Your task to perform on an android device: empty trash in the gmail app Image 0: 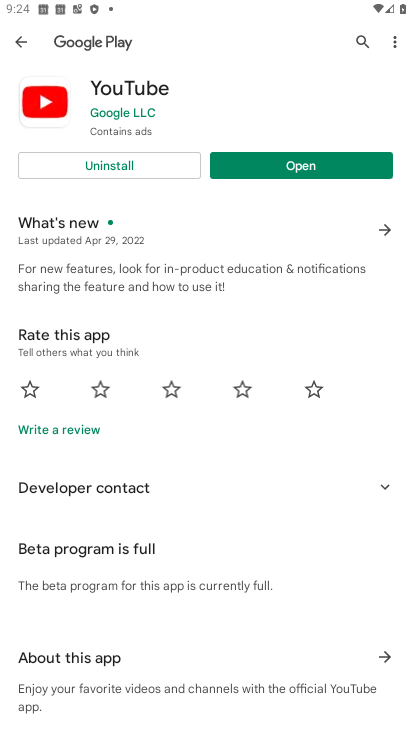
Step 0: drag from (207, 680) to (192, 407)
Your task to perform on an android device: empty trash in the gmail app Image 1: 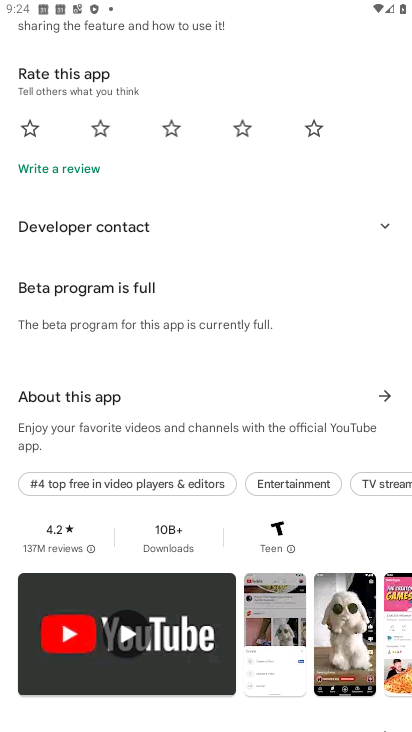
Step 1: press home button
Your task to perform on an android device: empty trash in the gmail app Image 2: 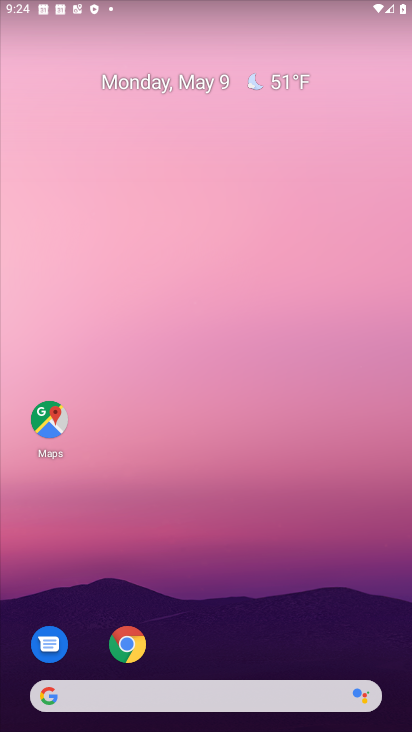
Step 2: drag from (191, 668) to (136, 56)
Your task to perform on an android device: empty trash in the gmail app Image 3: 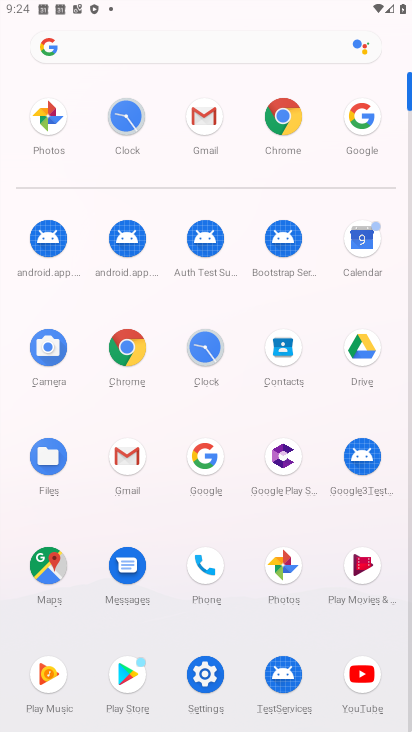
Step 3: click (137, 454)
Your task to perform on an android device: empty trash in the gmail app Image 4: 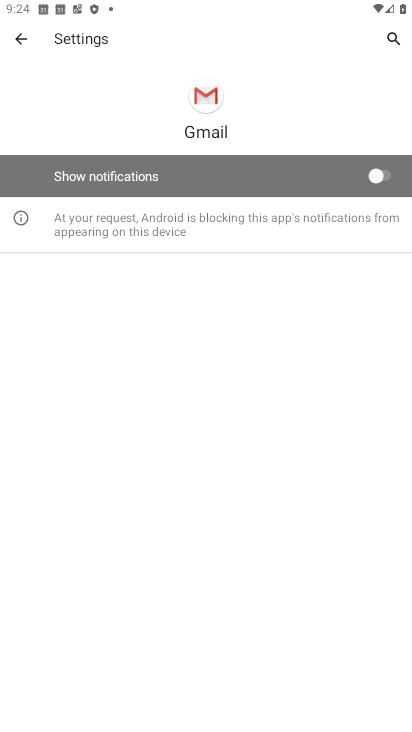
Step 4: click (20, 41)
Your task to perform on an android device: empty trash in the gmail app Image 5: 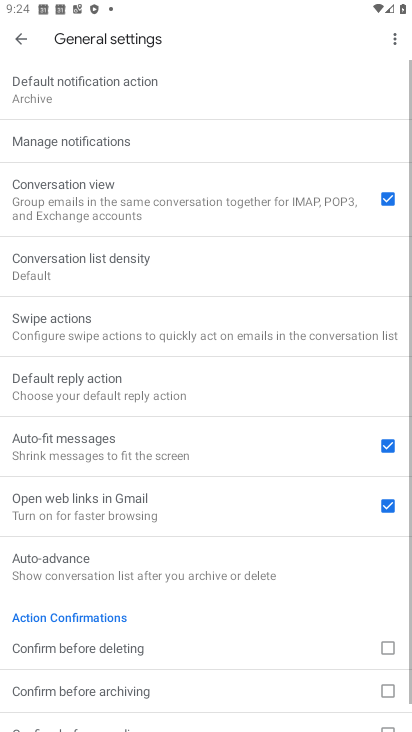
Step 5: click (20, 41)
Your task to perform on an android device: empty trash in the gmail app Image 6: 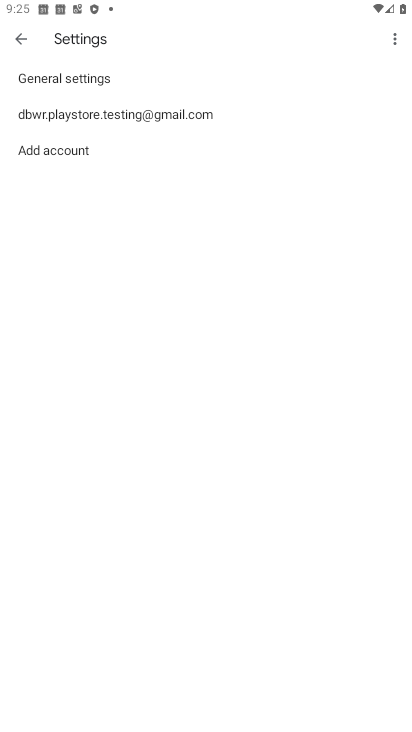
Step 6: click (21, 41)
Your task to perform on an android device: empty trash in the gmail app Image 7: 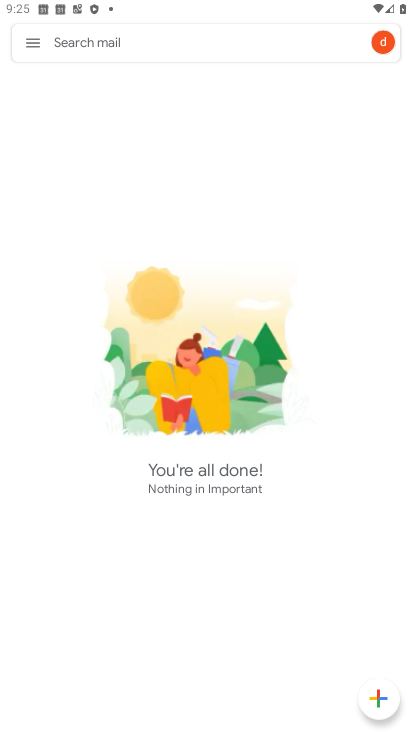
Step 7: click (21, 41)
Your task to perform on an android device: empty trash in the gmail app Image 8: 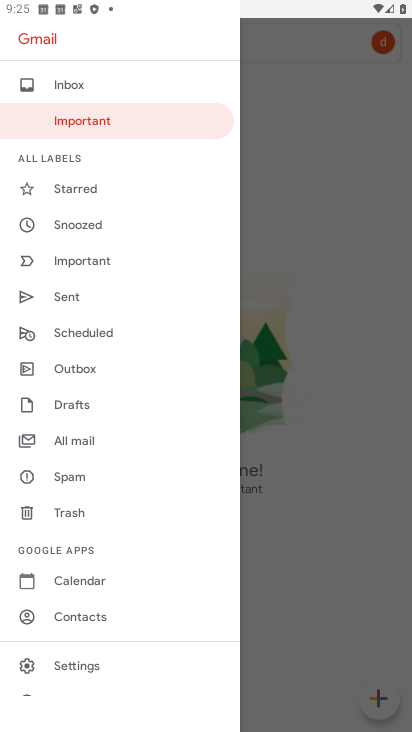
Step 8: click (71, 517)
Your task to perform on an android device: empty trash in the gmail app Image 9: 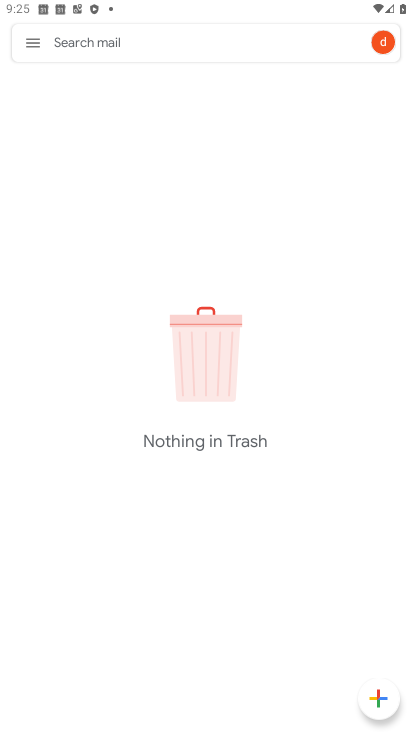
Step 9: task complete